Your task to perform on an android device: make emails show in primary in the gmail app Image 0: 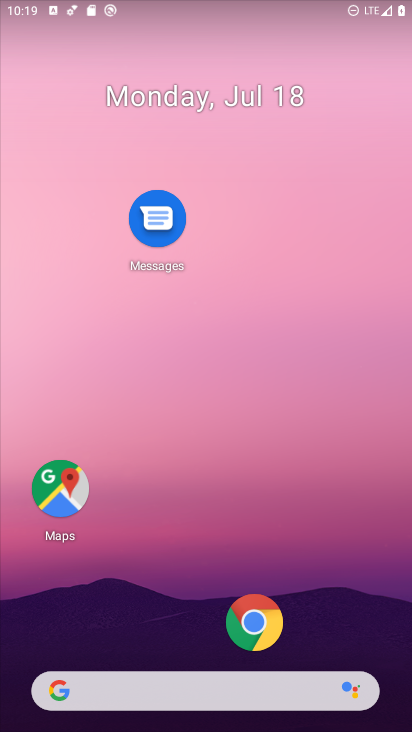
Step 0: press home button
Your task to perform on an android device: make emails show in primary in the gmail app Image 1: 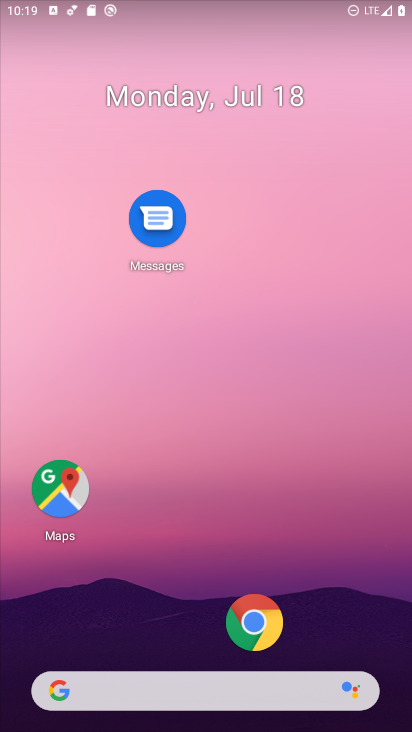
Step 1: drag from (171, 693) to (203, 179)
Your task to perform on an android device: make emails show in primary in the gmail app Image 2: 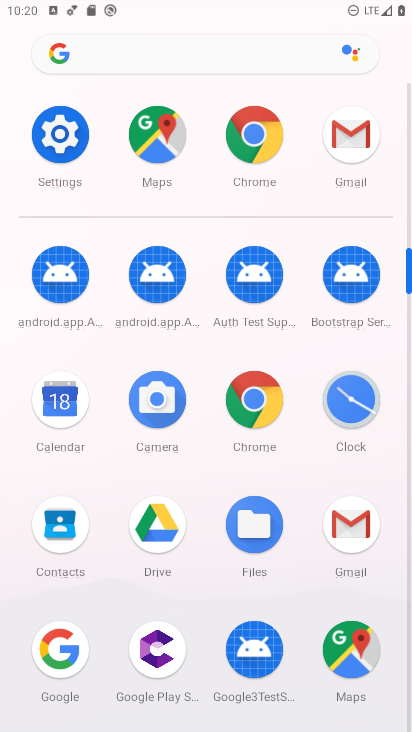
Step 2: click (345, 547)
Your task to perform on an android device: make emails show in primary in the gmail app Image 3: 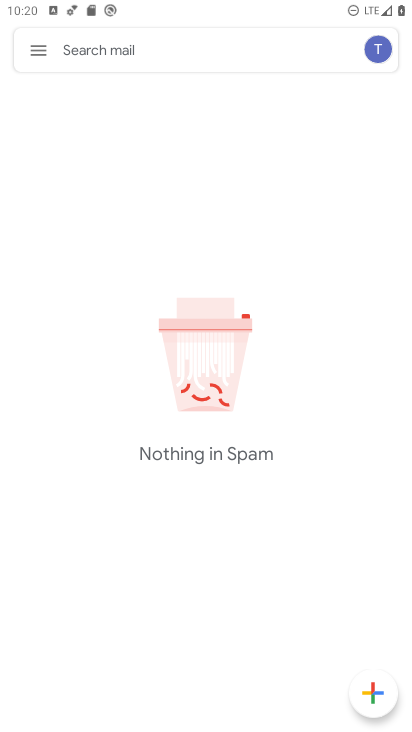
Step 3: click (38, 59)
Your task to perform on an android device: make emails show in primary in the gmail app Image 4: 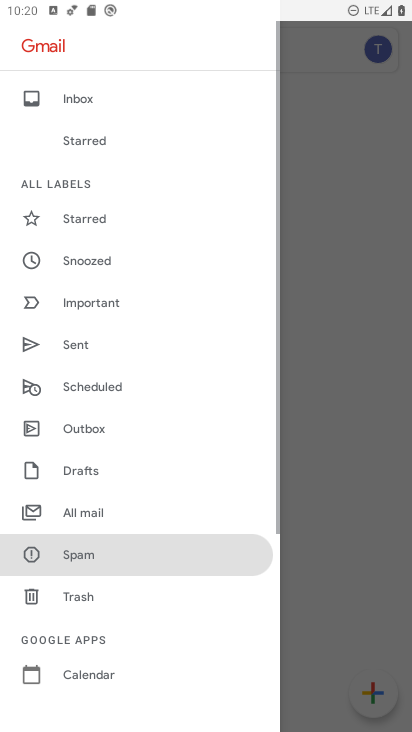
Step 4: drag from (70, 624) to (139, 234)
Your task to perform on an android device: make emails show in primary in the gmail app Image 5: 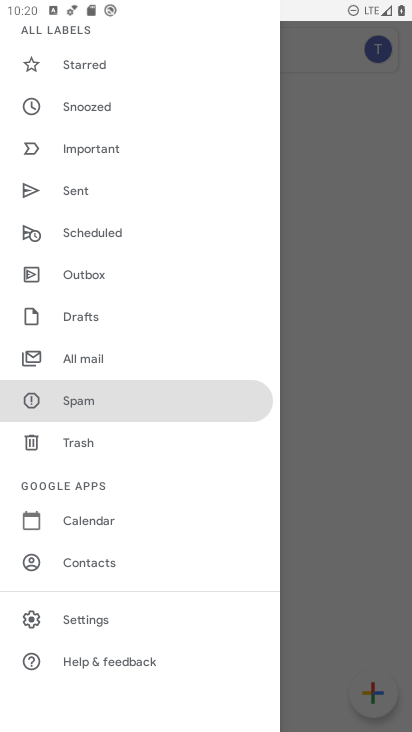
Step 5: click (59, 623)
Your task to perform on an android device: make emails show in primary in the gmail app Image 6: 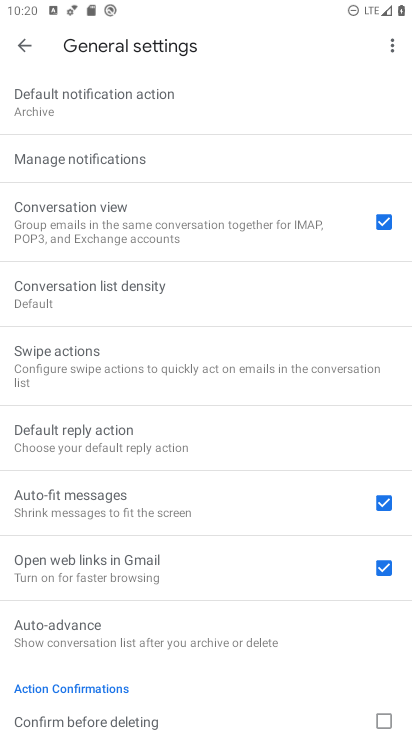
Step 6: task complete